Your task to perform on an android device: Go to Reddit.com Image 0: 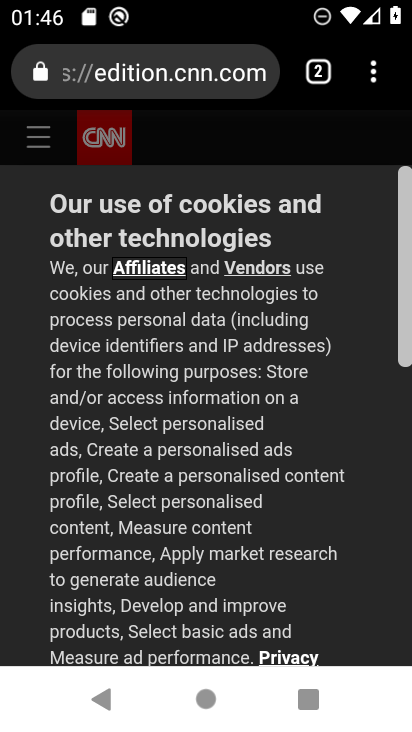
Step 0: click (207, 87)
Your task to perform on an android device: Go to Reddit.com Image 1: 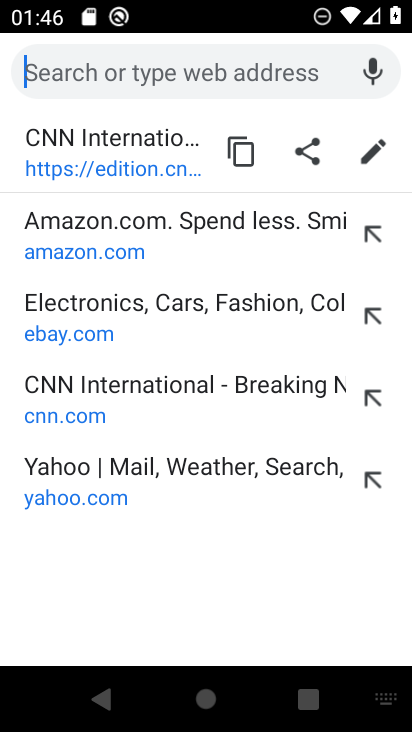
Step 1: type "reddit.com"
Your task to perform on an android device: Go to Reddit.com Image 2: 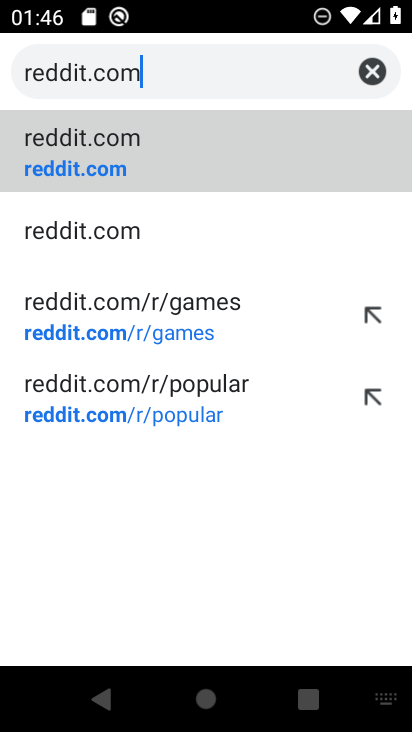
Step 2: click (265, 160)
Your task to perform on an android device: Go to Reddit.com Image 3: 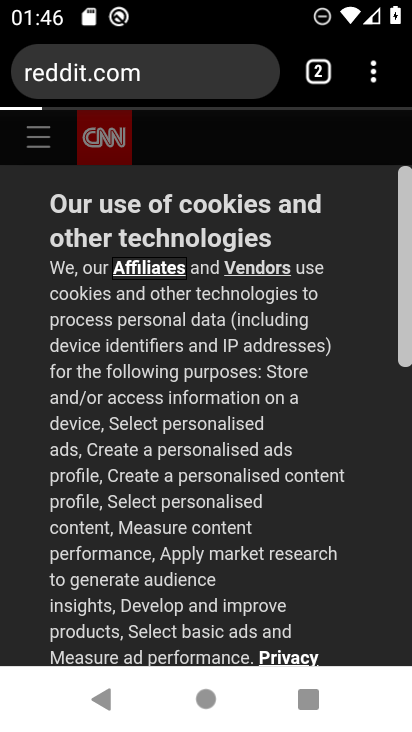
Step 3: task complete